Your task to perform on an android device: turn off wifi Image 0: 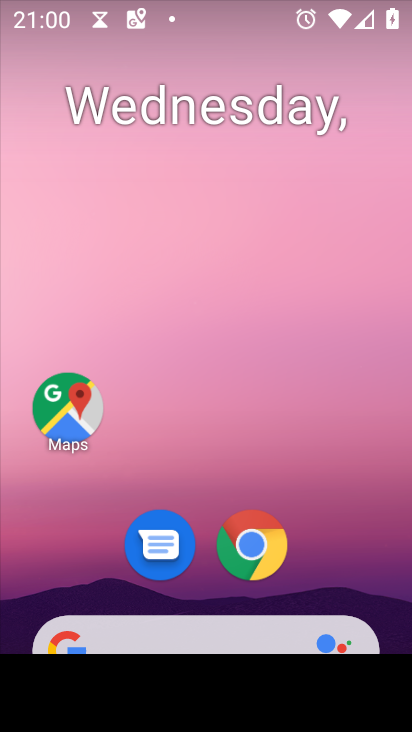
Step 0: drag from (231, 631) to (326, 49)
Your task to perform on an android device: turn off wifi Image 1: 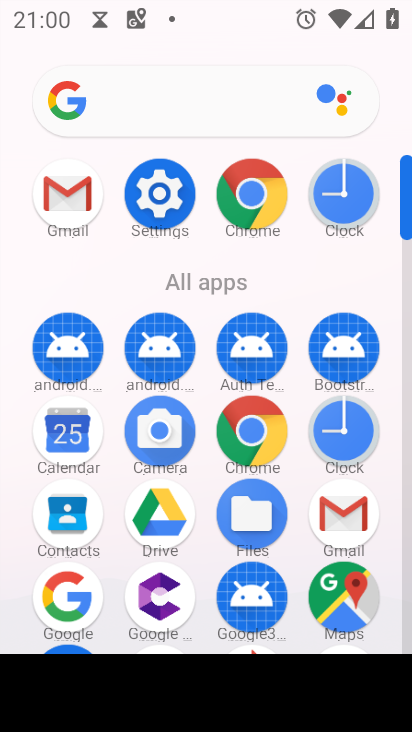
Step 1: click (156, 202)
Your task to perform on an android device: turn off wifi Image 2: 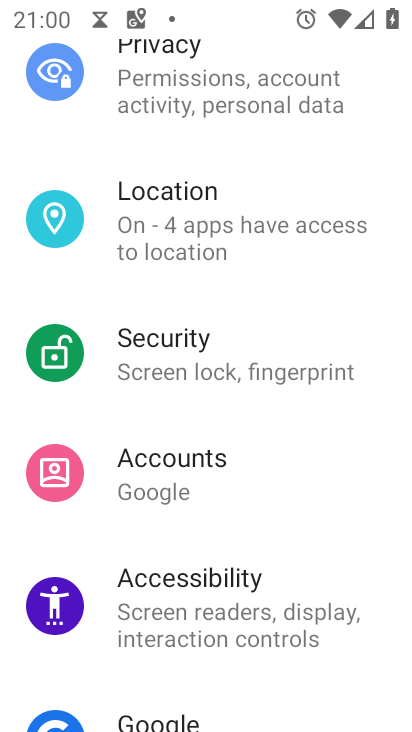
Step 2: drag from (267, 141) to (192, 616)
Your task to perform on an android device: turn off wifi Image 3: 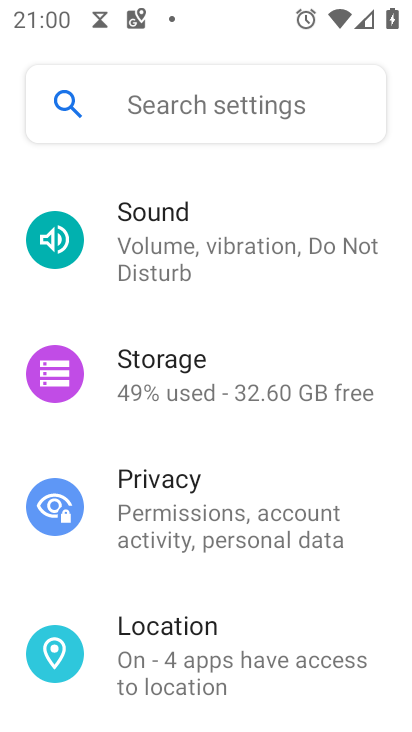
Step 3: drag from (244, 221) to (195, 616)
Your task to perform on an android device: turn off wifi Image 4: 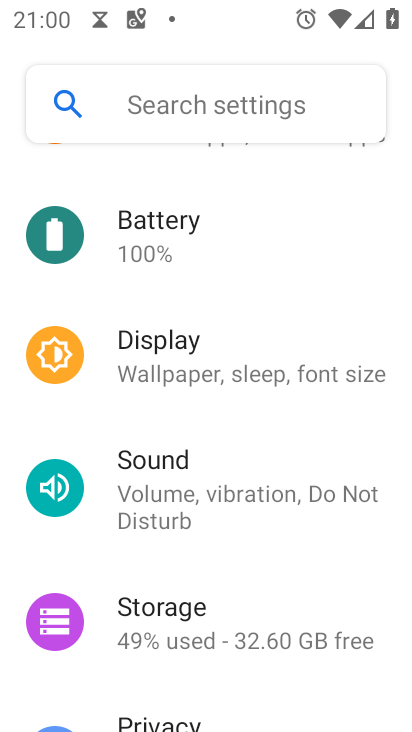
Step 4: drag from (268, 237) to (209, 589)
Your task to perform on an android device: turn off wifi Image 5: 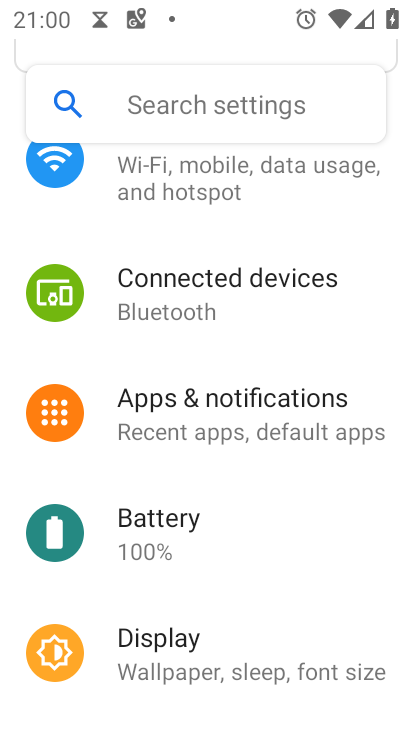
Step 5: drag from (264, 225) to (256, 597)
Your task to perform on an android device: turn off wifi Image 6: 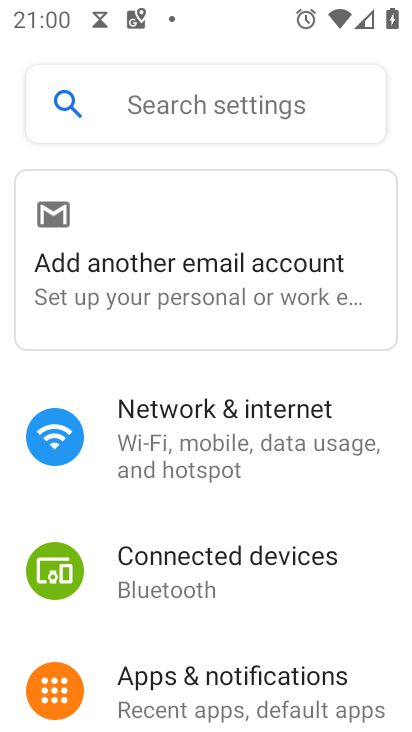
Step 6: click (198, 425)
Your task to perform on an android device: turn off wifi Image 7: 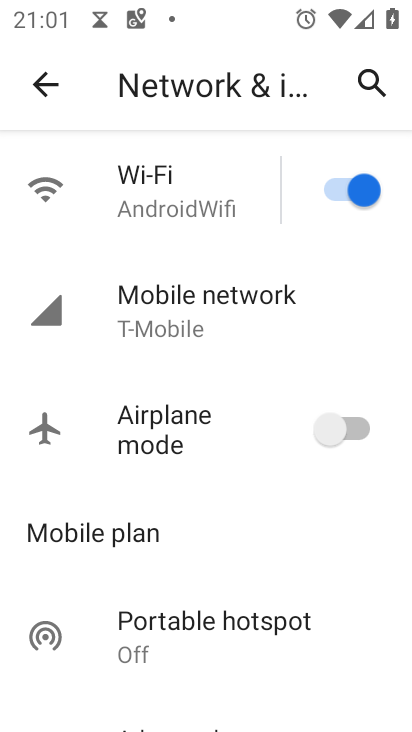
Step 7: click (332, 190)
Your task to perform on an android device: turn off wifi Image 8: 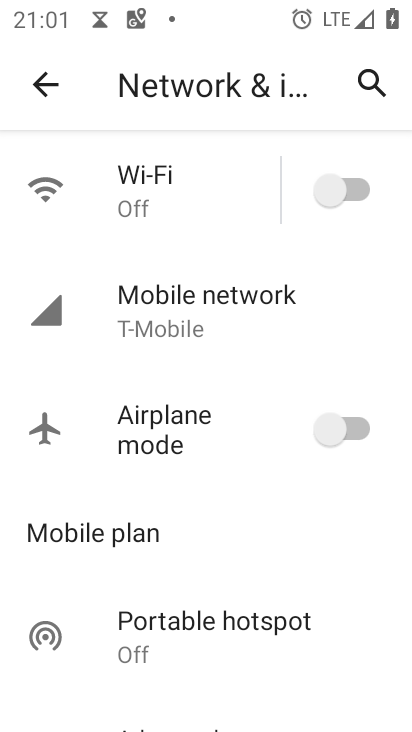
Step 8: task complete